Your task to perform on an android device: Open notification settings Image 0: 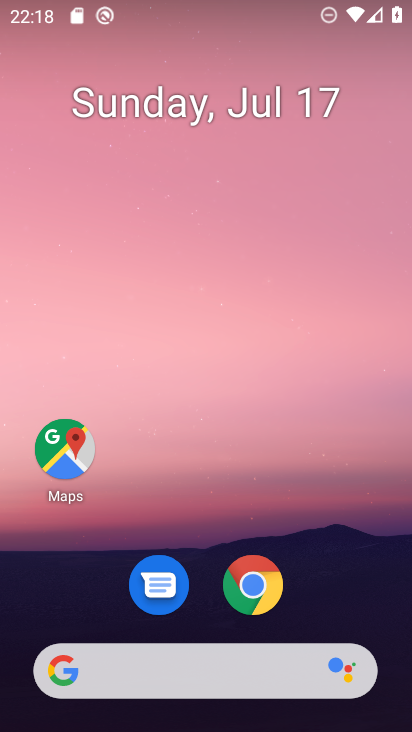
Step 0: press home button
Your task to perform on an android device: Open notification settings Image 1: 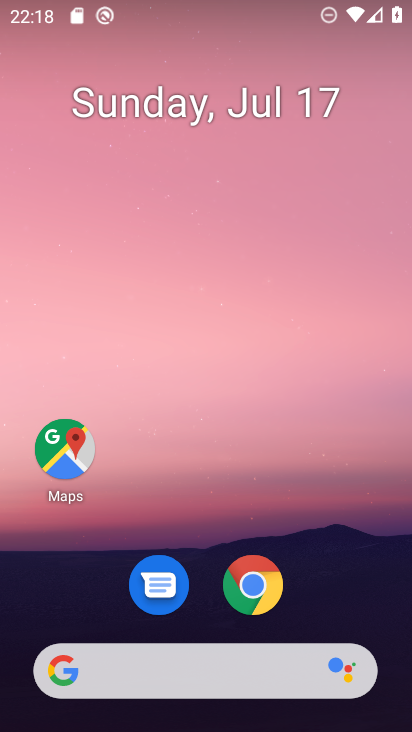
Step 1: drag from (291, 273) to (360, 55)
Your task to perform on an android device: Open notification settings Image 2: 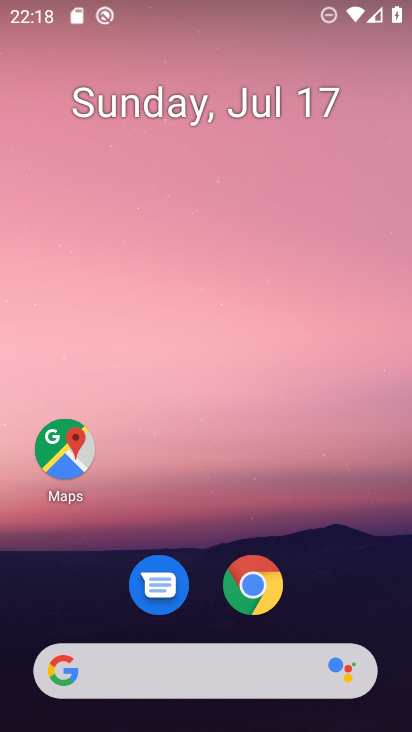
Step 2: drag from (179, 667) to (241, 53)
Your task to perform on an android device: Open notification settings Image 3: 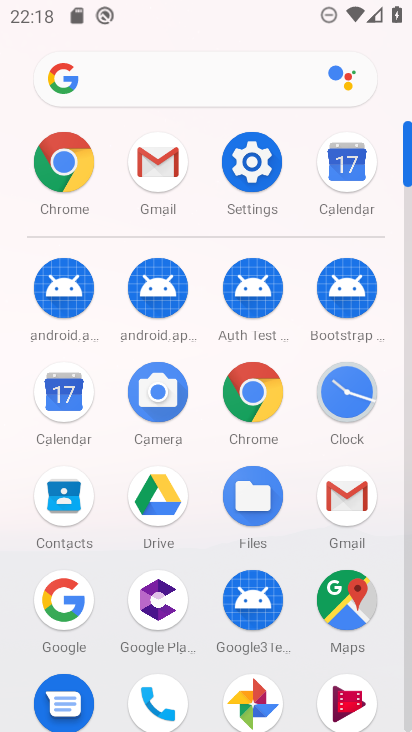
Step 3: click (251, 173)
Your task to perform on an android device: Open notification settings Image 4: 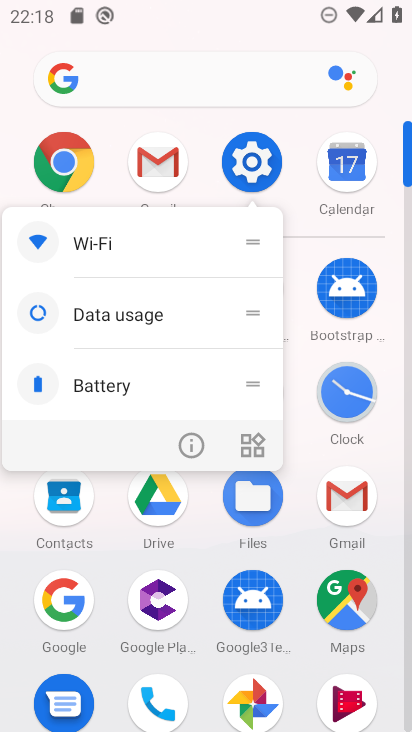
Step 4: click (249, 160)
Your task to perform on an android device: Open notification settings Image 5: 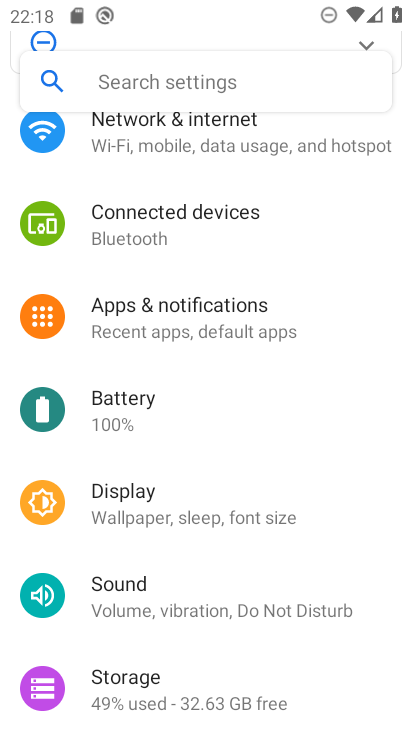
Step 5: click (212, 325)
Your task to perform on an android device: Open notification settings Image 6: 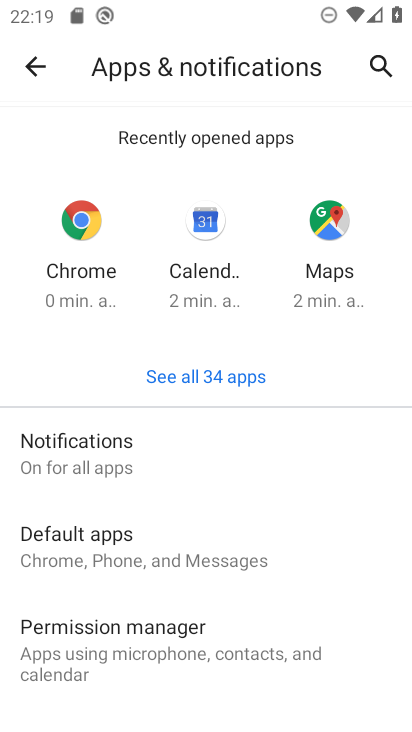
Step 6: click (133, 473)
Your task to perform on an android device: Open notification settings Image 7: 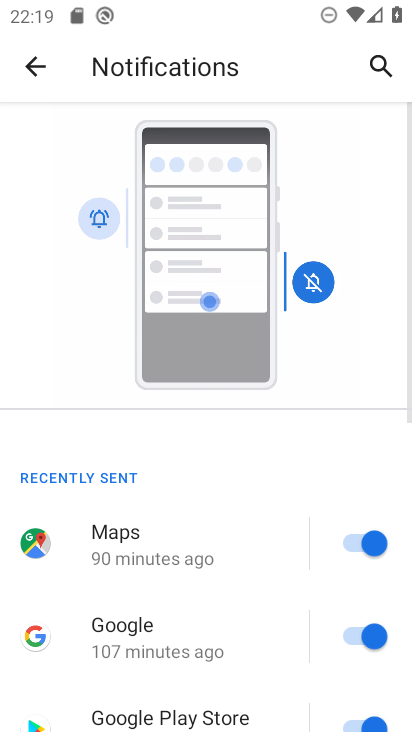
Step 7: task complete